Your task to perform on an android device: Go to accessibility settings Image 0: 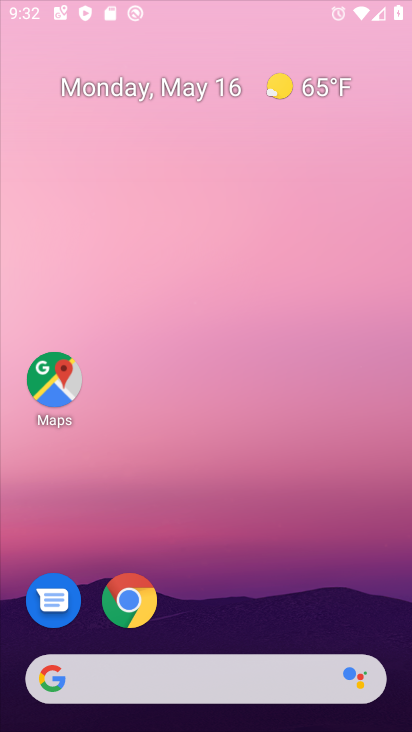
Step 0: drag from (209, 560) to (234, 4)
Your task to perform on an android device: Go to accessibility settings Image 1: 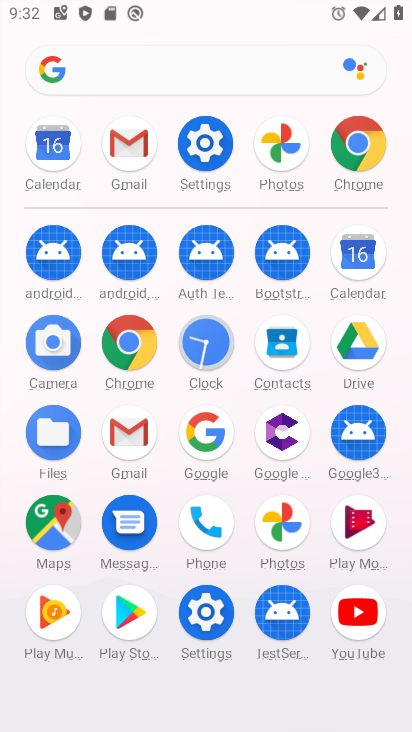
Step 1: click (218, 145)
Your task to perform on an android device: Go to accessibility settings Image 2: 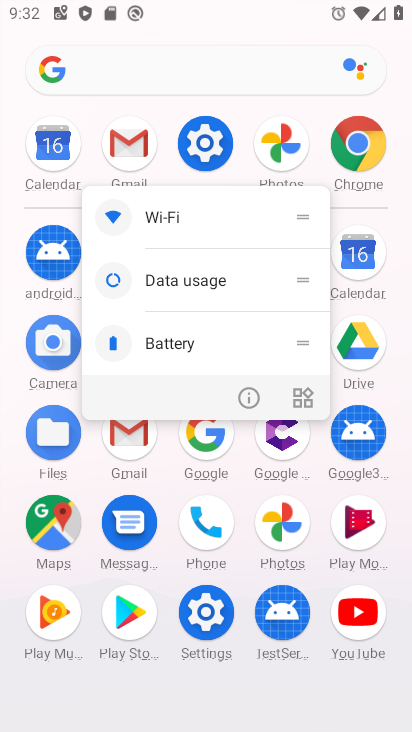
Step 2: click (244, 398)
Your task to perform on an android device: Go to accessibility settings Image 3: 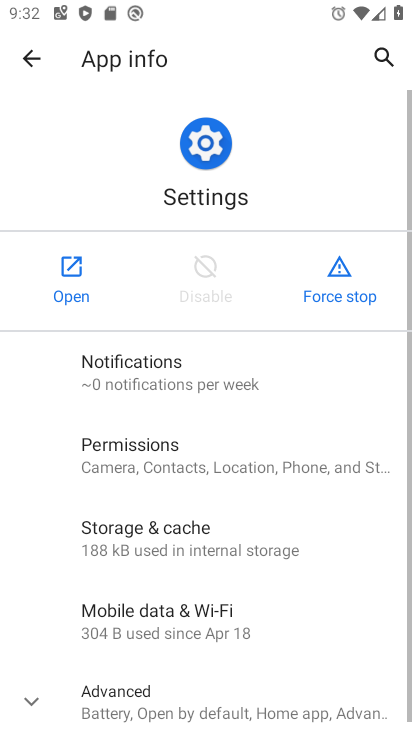
Step 3: click (68, 261)
Your task to perform on an android device: Go to accessibility settings Image 4: 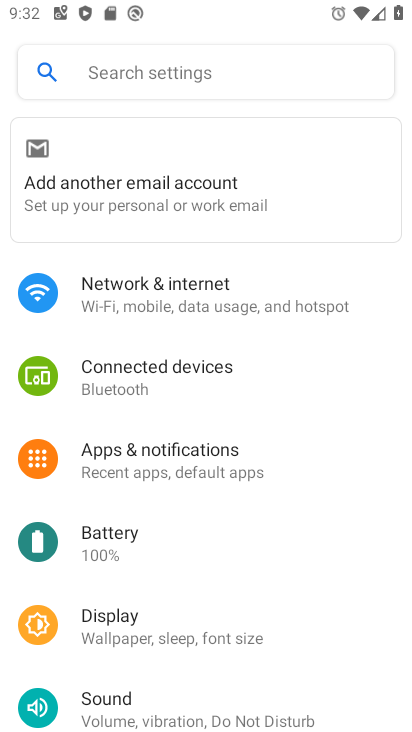
Step 4: drag from (207, 559) to (272, 119)
Your task to perform on an android device: Go to accessibility settings Image 5: 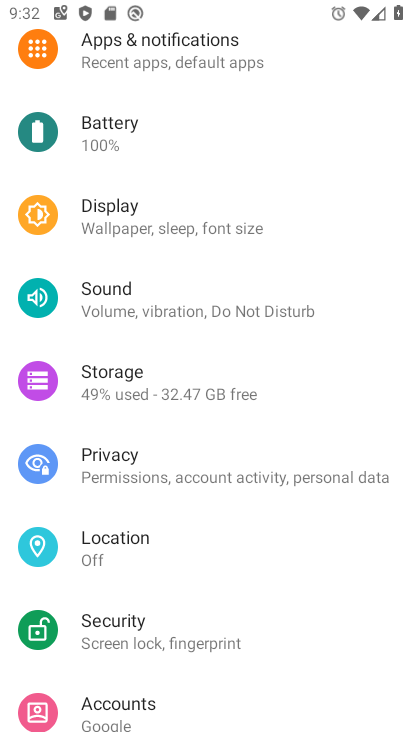
Step 5: drag from (185, 623) to (252, 113)
Your task to perform on an android device: Go to accessibility settings Image 6: 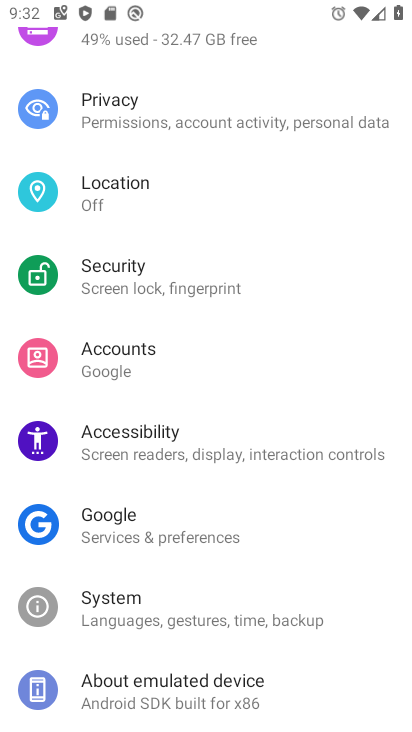
Step 6: click (191, 442)
Your task to perform on an android device: Go to accessibility settings Image 7: 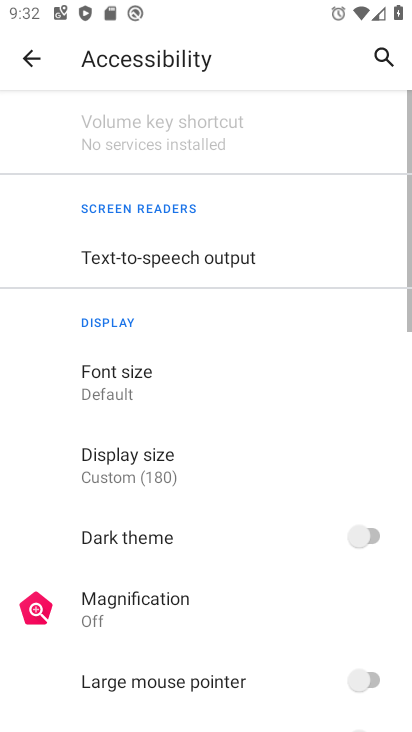
Step 7: task complete